Your task to perform on an android device: Set the phone to "Do not disturb". Image 0: 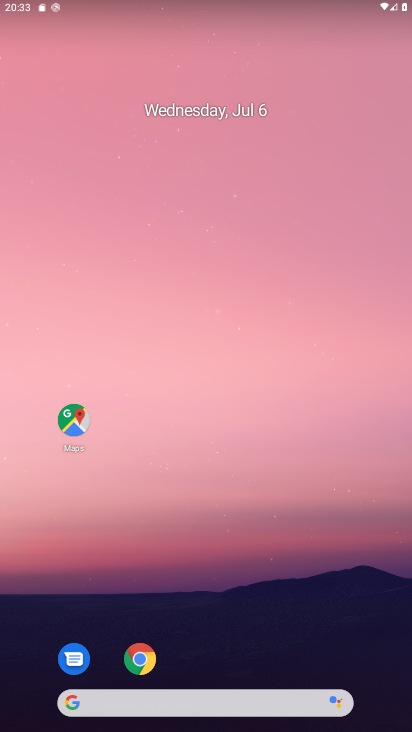
Step 0: drag from (157, 4) to (189, 557)
Your task to perform on an android device: Set the phone to "Do not disturb". Image 1: 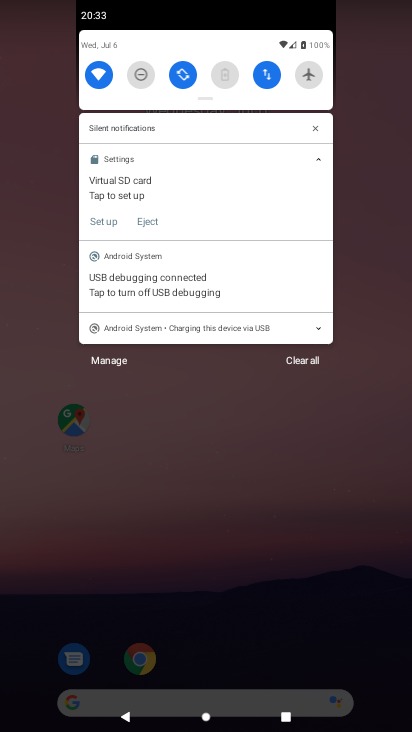
Step 1: click (140, 74)
Your task to perform on an android device: Set the phone to "Do not disturb". Image 2: 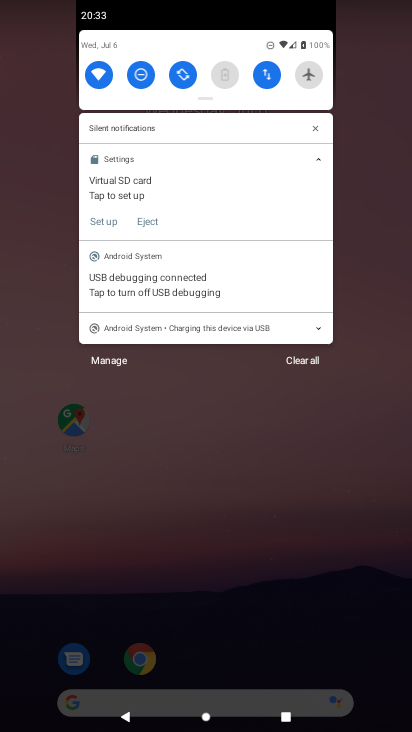
Step 2: task complete